Your task to perform on an android device: Open notification settings Image 0: 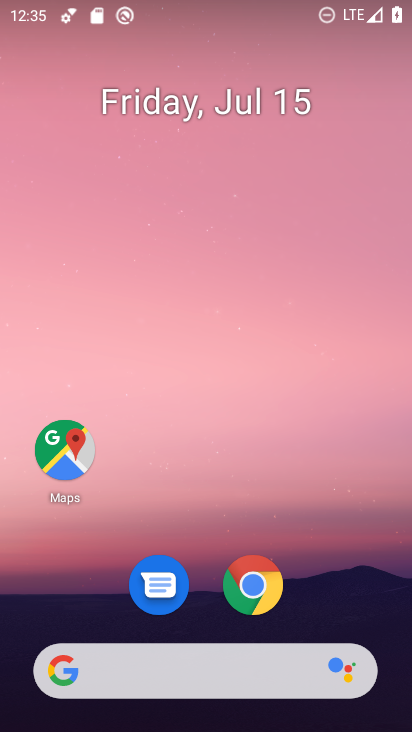
Step 0: drag from (306, 584) to (302, 71)
Your task to perform on an android device: Open notification settings Image 1: 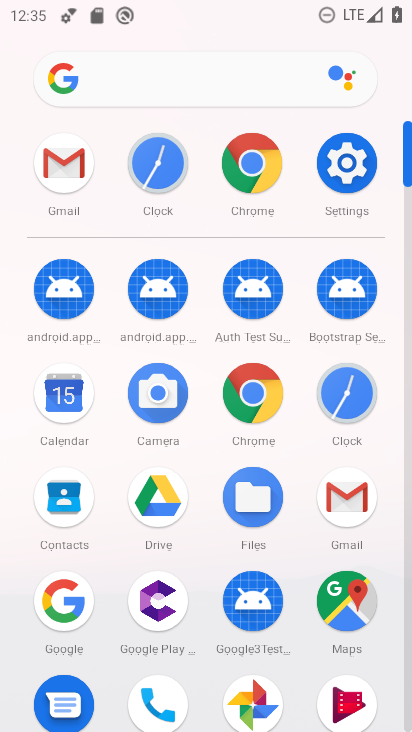
Step 1: click (351, 171)
Your task to perform on an android device: Open notification settings Image 2: 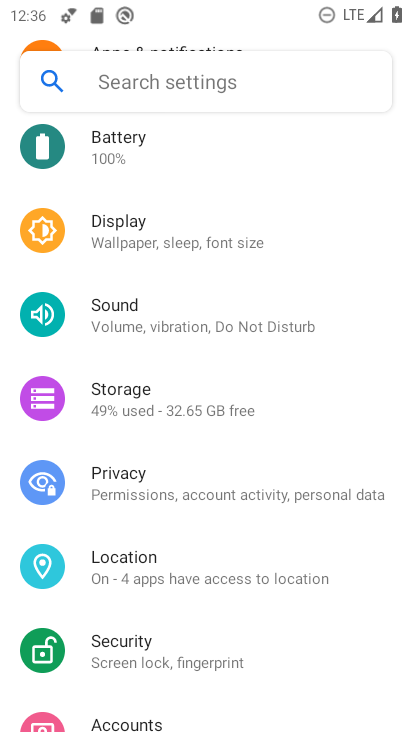
Step 2: drag from (250, 239) to (229, 639)
Your task to perform on an android device: Open notification settings Image 3: 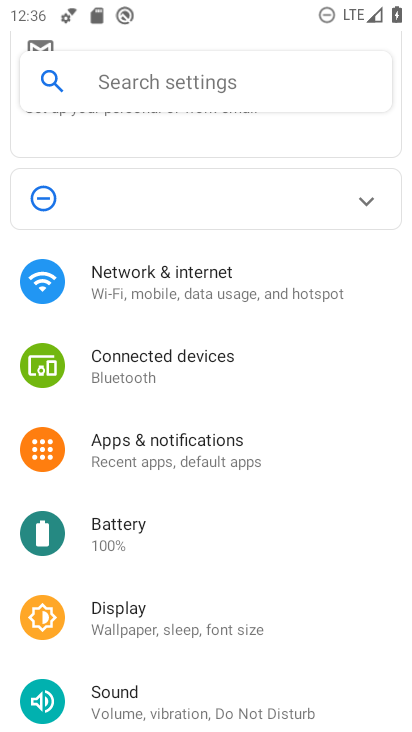
Step 3: click (246, 451)
Your task to perform on an android device: Open notification settings Image 4: 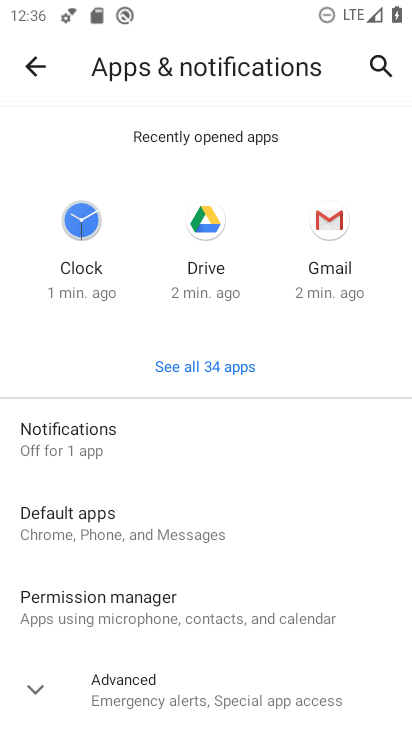
Step 4: click (58, 434)
Your task to perform on an android device: Open notification settings Image 5: 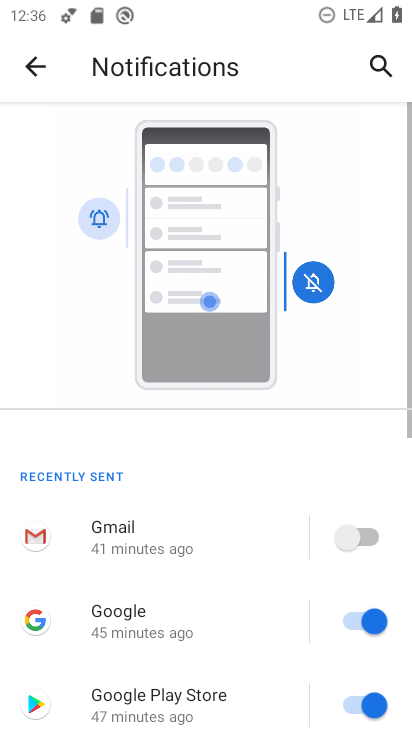
Step 5: task complete